Your task to perform on an android device: snooze an email in the gmail app Image 0: 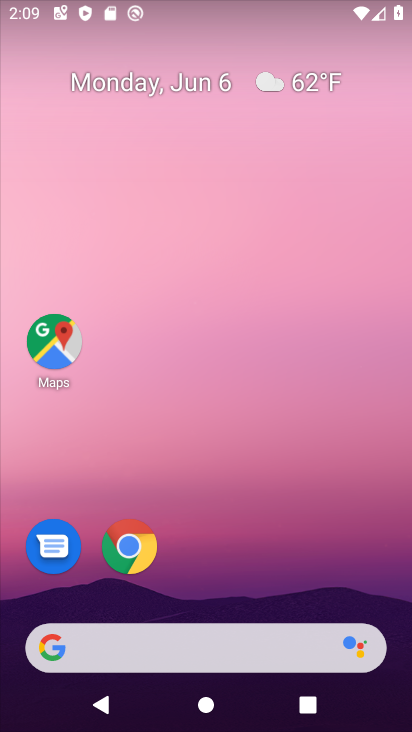
Step 0: drag from (273, 580) to (324, 77)
Your task to perform on an android device: snooze an email in the gmail app Image 1: 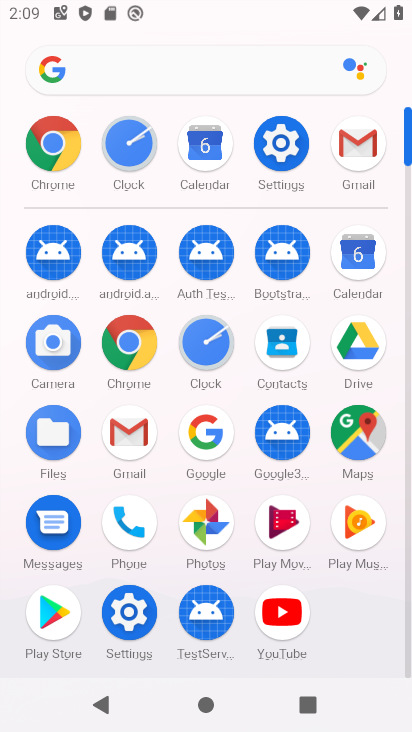
Step 1: click (367, 157)
Your task to perform on an android device: snooze an email in the gmail app Image 2: 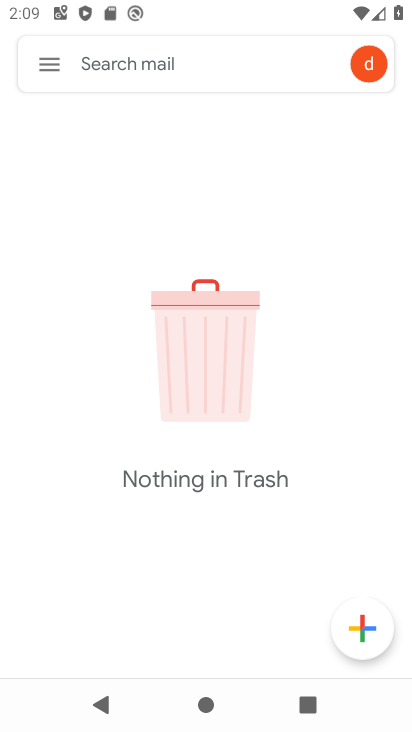
Step 2: click (48, 64)
Your task to perform on an android device: snooze an email in the gmail app Image 3: 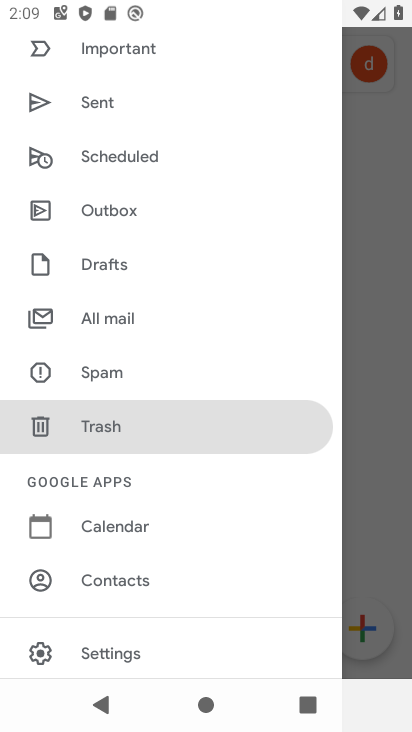
Step 3: drag from (172, 590) to (169, 195)
Your task to perform on an android device: snooze an email in the gmail app Image 4: 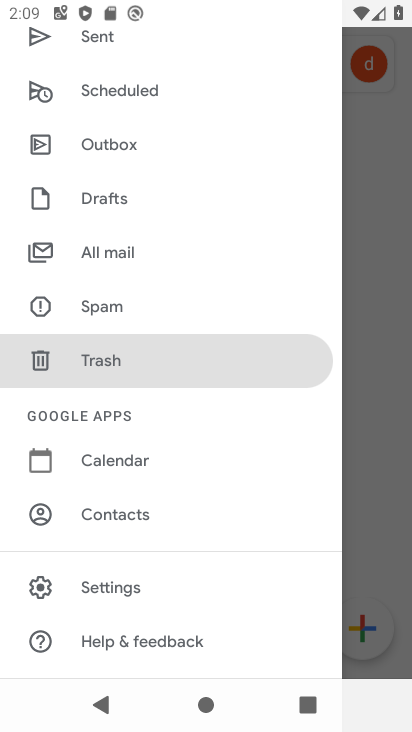
Step 4: click (105, 252)
Your task to perform on an android device: snooze an email in the gmail app Image 5: 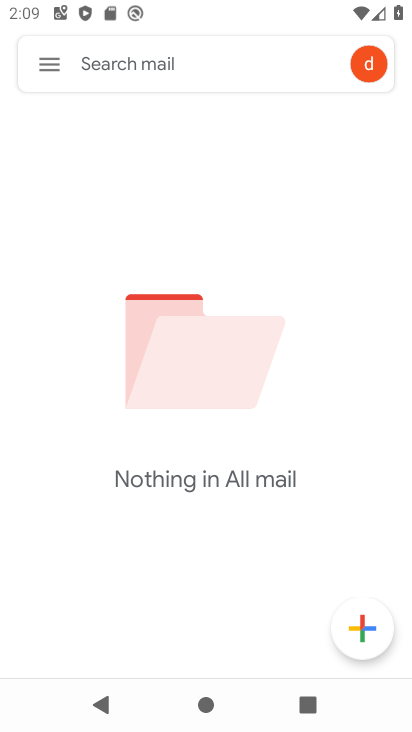
Step 5: task complete